Your task to perform on an android device: Open the map Image 0: 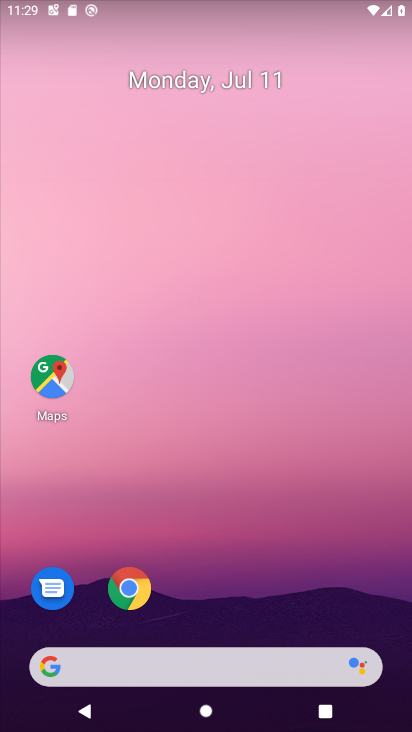
Step 0: drag from (273, 610) to (259, 379)
Your task to perform on an android device: Open the map Image 1: 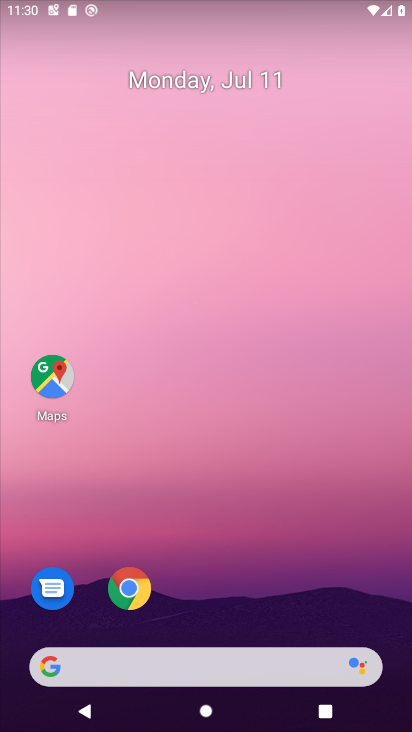
Step 1: drag from (266, 668) to (135, 199)
Your task to perform on an android device: Open the map Image 2: 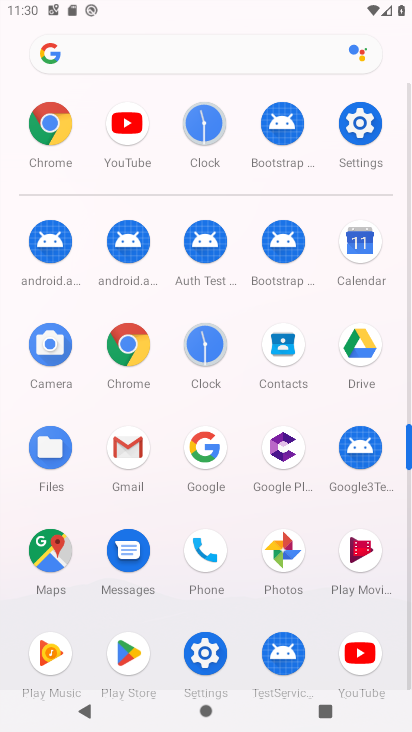
Step 2: click (58, 557)
Your task to perform on an android device: Open the map Image 3: 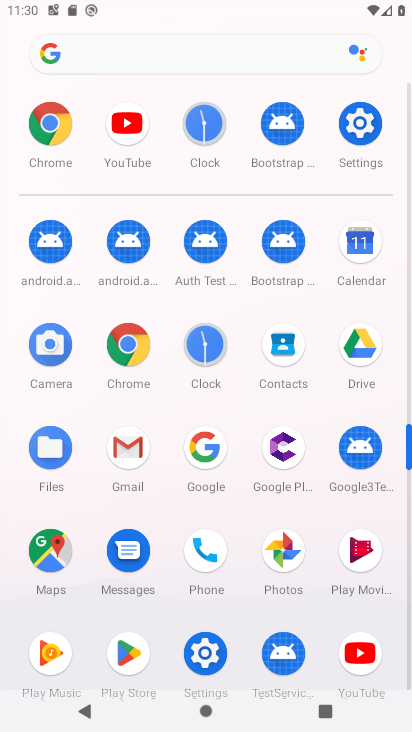
Step 3: click (47, 544)
Your task to perform on an android device: Open the map Image 4: 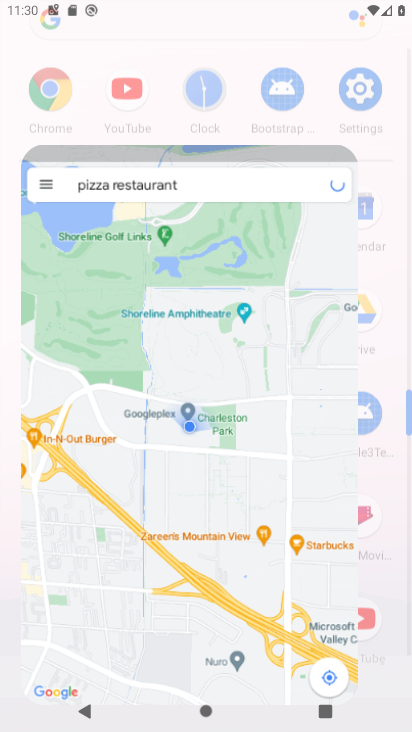
Step 4: click (47, 540)
Your task to perform on an android device: Open the map Image 5: 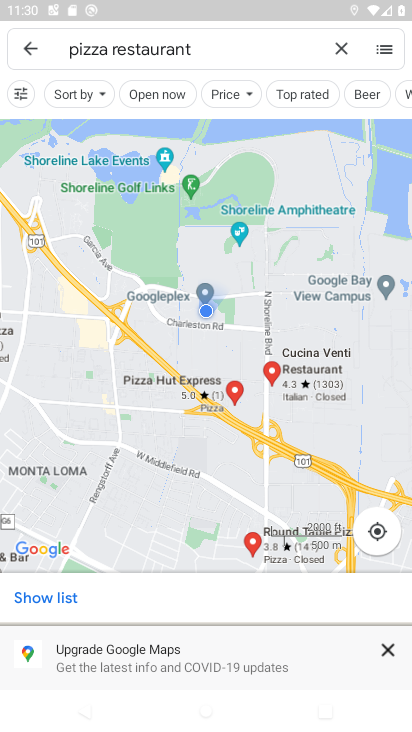
Step 5: click (212, 45)
Your task to perform on an android device: Open the map Image 6: 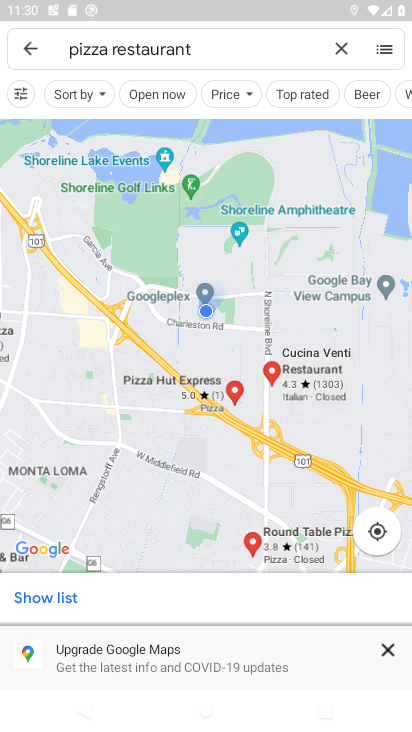
Step 6: task complete